Your task to perform on an android device: read, delete, or share a saved page in the chrome app Image 0: 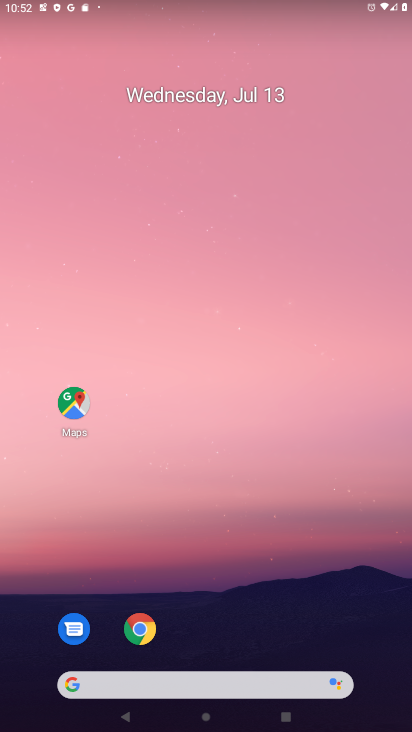
Step 0: click (148, 623)
Your task to perform on an android device: read, delete, or share a saved page in the chrome app Image 1: 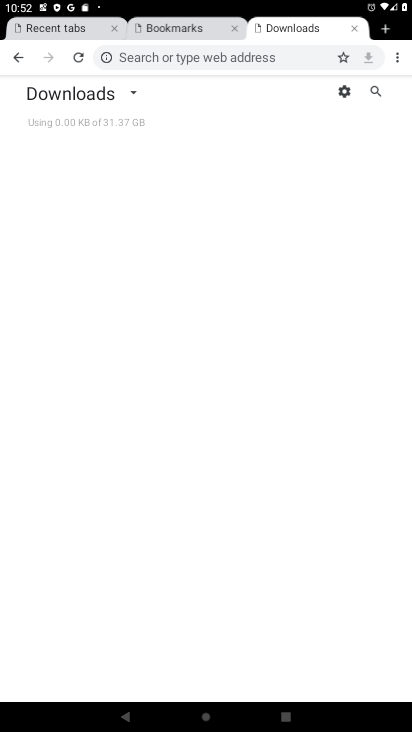
Step 1: click (388, 61)
Your task to perform on an android device: read, delete, or share a saved page in the chrome app Image 2: 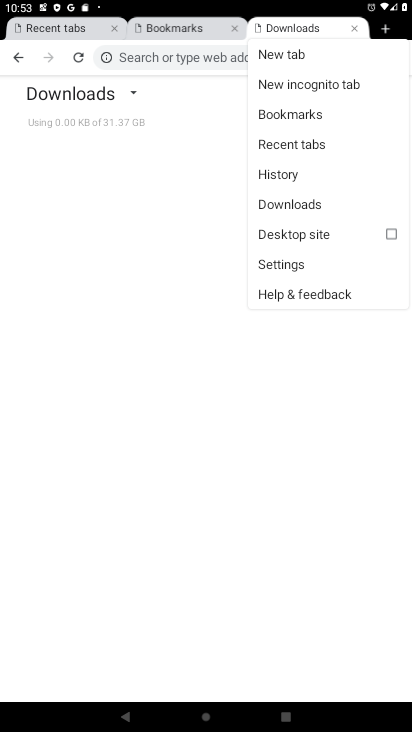
Step 2: click (289, 204)
Your task to perform on an android device: read, delete, or share a saved page in the chrome app Image 3: 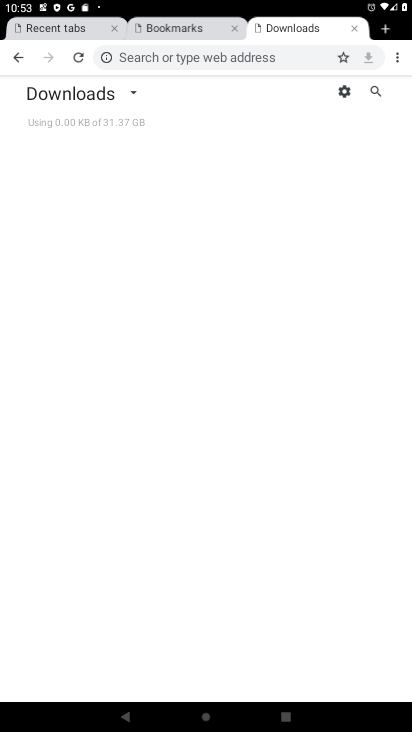
Step 3: task complete